Your task to perform on an android device: Go to internet settings Image 0: 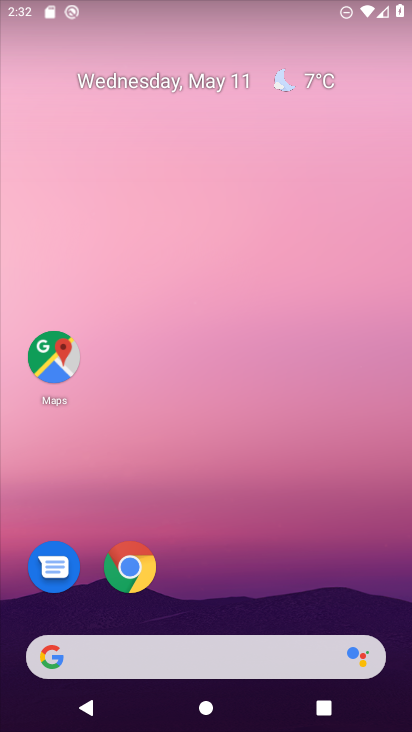
Step 0: drag from (309, 583) to (235, 45)
Your task to perform on an android device: Go to internet settings Image 1: 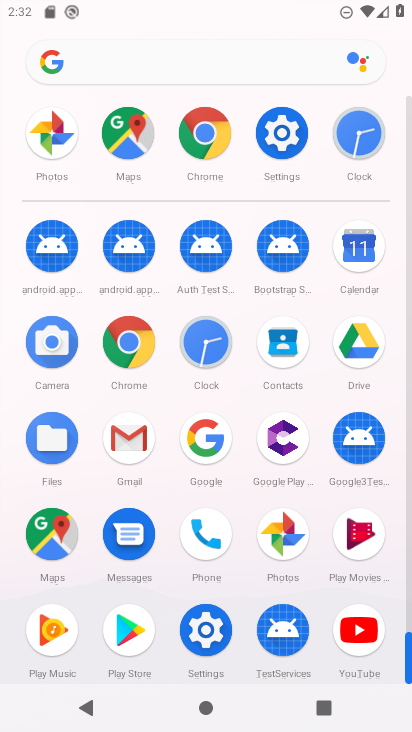
Step 1: click (213, 628)
Your task to perform on an android device: Go to internet settings Image 2: 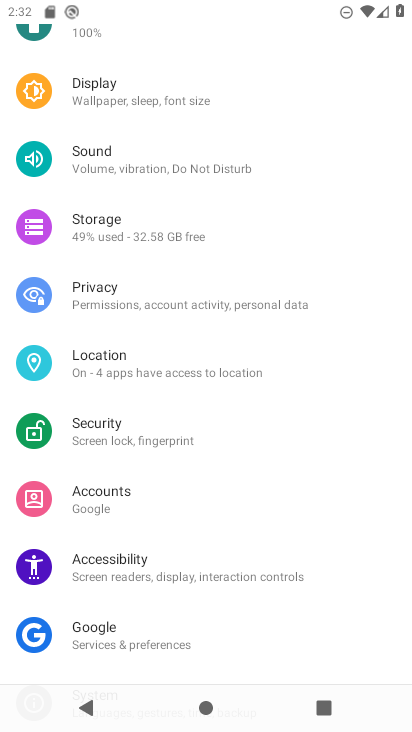
Step 2: drag from (103, 169) to (109, 475)
Your task to perform on an android device: Go to internet settings Image 3: 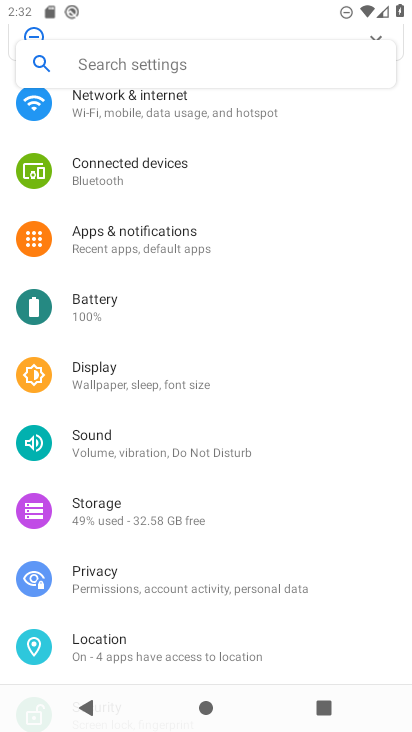
Step 3: click (126, 112)
Your task to perform on an android device: Go to internet settings Image 4: 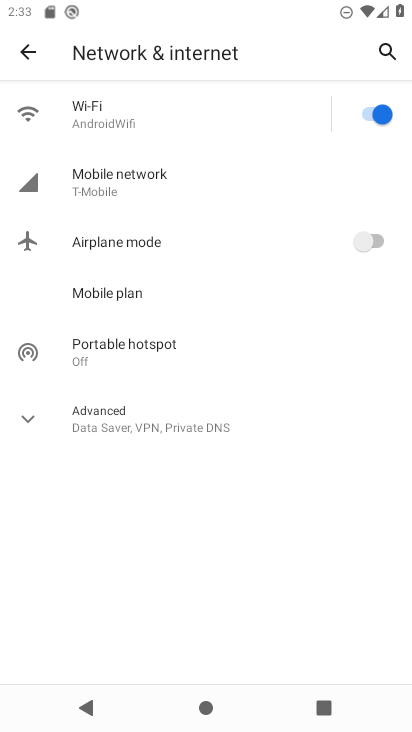
Step 4: task complete